Your task to perform on an android device: Open calendar and show me the fourth week of next month Image 0: 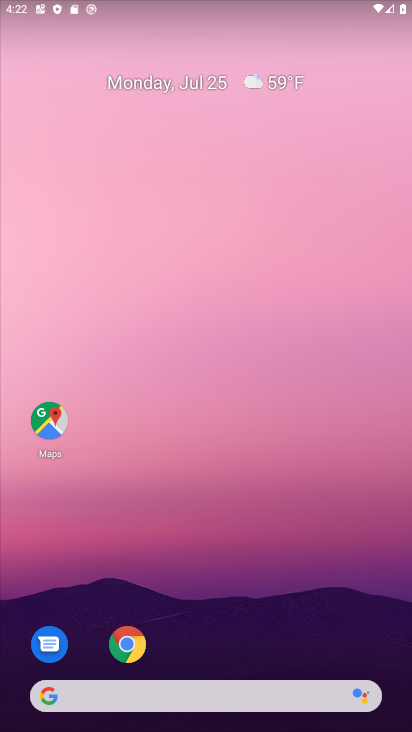
Step 0: drag from (227, 675) to (228, 181)
Your task to perform on an android device: Open calendar and show me the fourth week of next month Image 1: 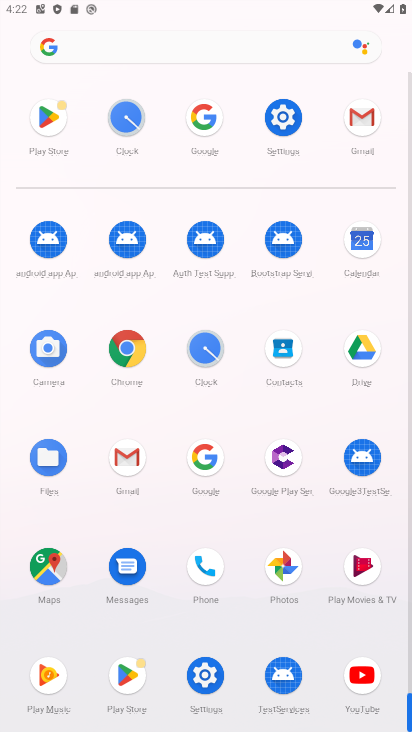
Step 1: click (357, 242)
Your task to perform on an android device: Open calendar and show me the fourth week of next month Image 2: 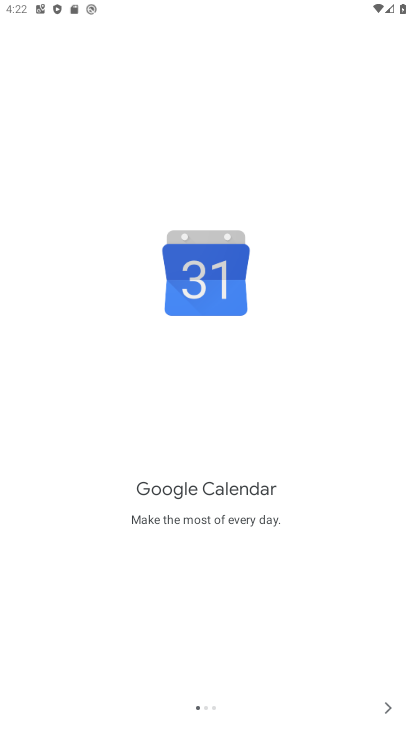
Step 2: click (380, 710)
Your task to perform on an android device: Open calendar and show me the fourth week of next month Image 3: 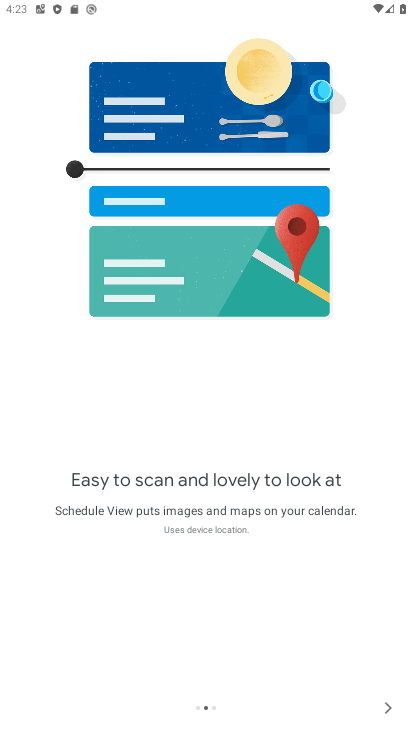
Step 3: click (380, 710)
Your task to perform on an android device: Open calendar and show me the fourth week of next month Image 4: 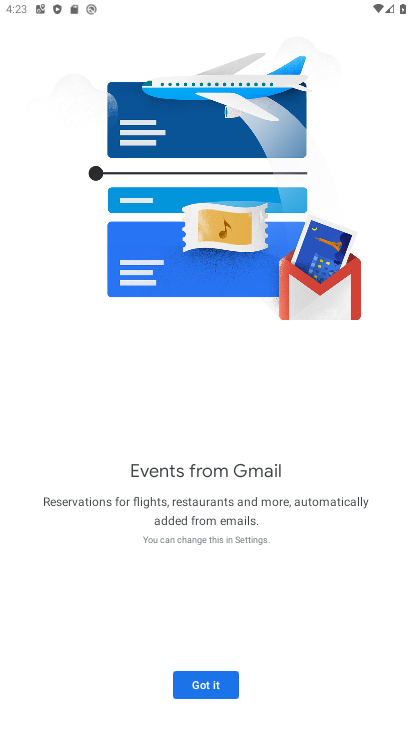
Step 4: click (207, 691)
Your task to perform on an android device: Open calendar and show me the fourth week of next month Image 5: 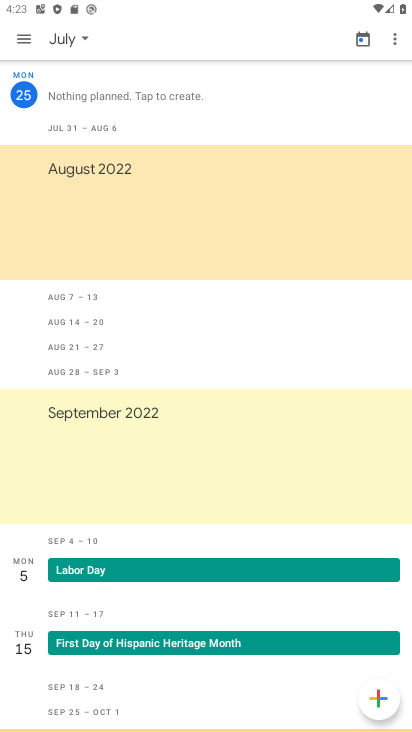
Step 5: click (75, 34)
Your task to perform on an android device: Open calendar and show me the fourth week of next month Image 6: 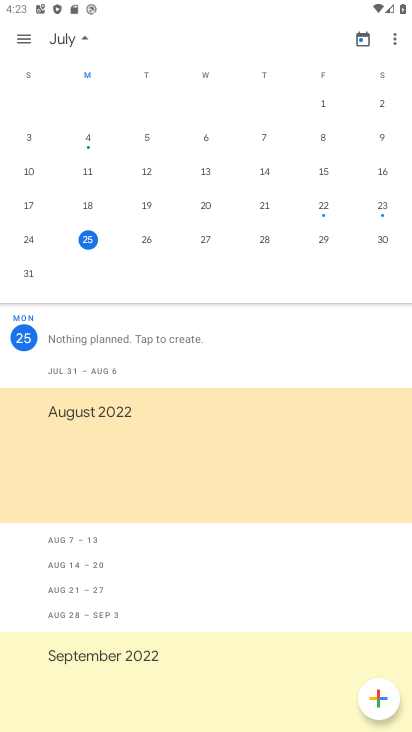
Step 6: drag from (394, 164) to (1, 258)
Your task to perform on an android device: Open calendar and show me the fourth week of next month Image 7: 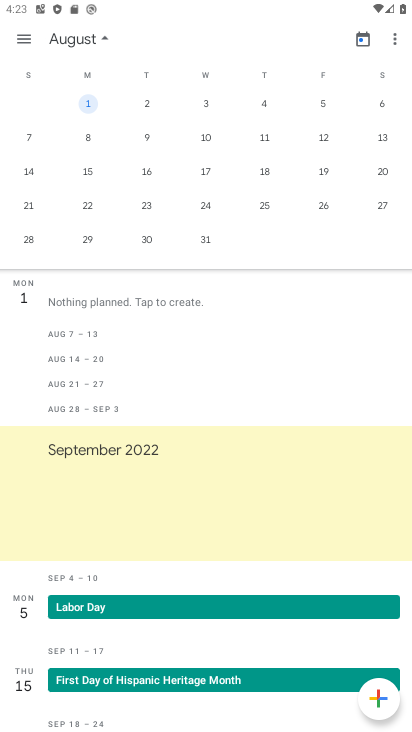
Step 7: click (26, 205)
Your task to perform on an android device: Open calendar and show me the fourth week of next month Image 8: 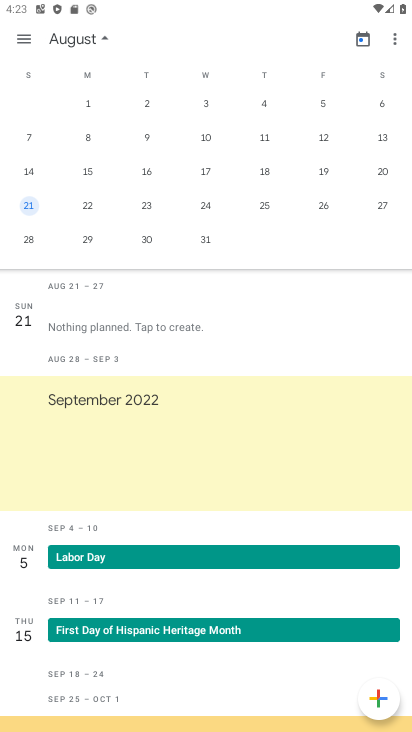
Step 8: task complete